Your task to perform on an android device: open app "Fetch Rewards" (install if not already installed), go to login, and select forgot password Image 0: 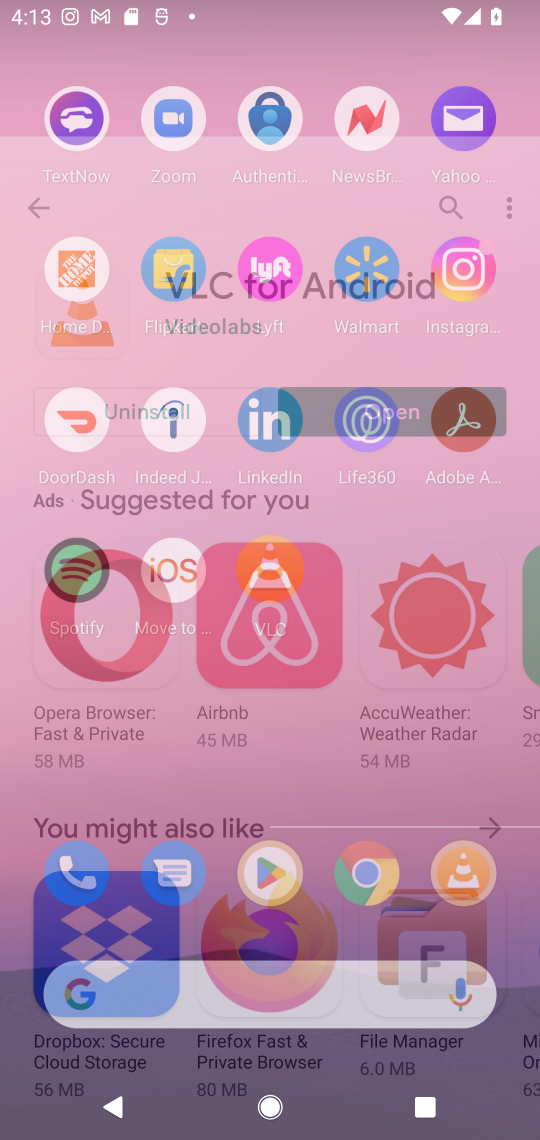
Step 0: press home button
Your task to perform on an android device: open app "Fetch Rewards" (install if not already installed), go to login, and select forgot password Image 1: 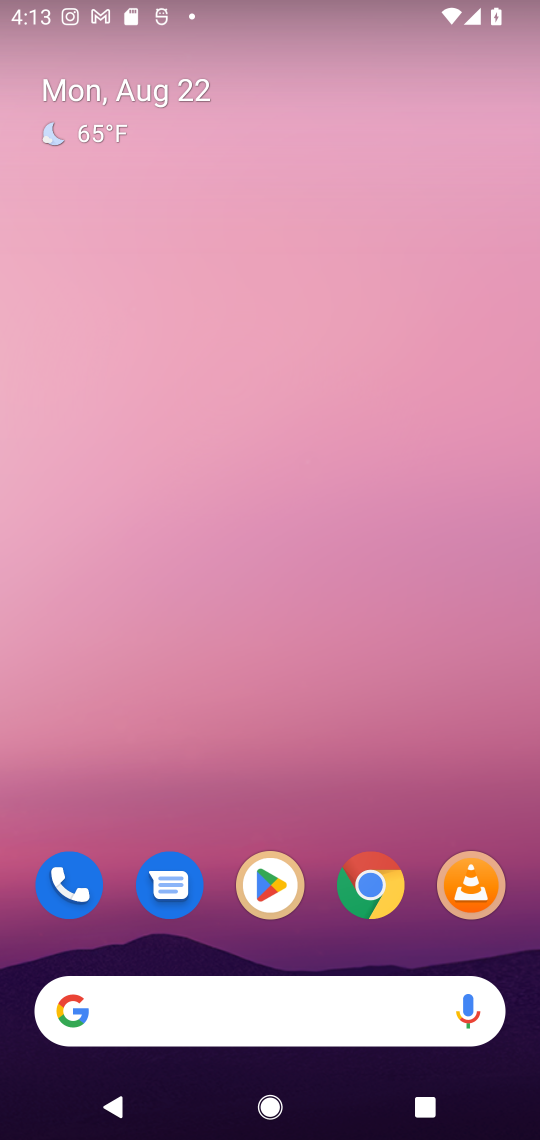
Step 1: click (264, 877)
Your task to perform on an android device: open app "Fetch Rewards" (install if not already installed), go to login, and select forgot password Image 2: 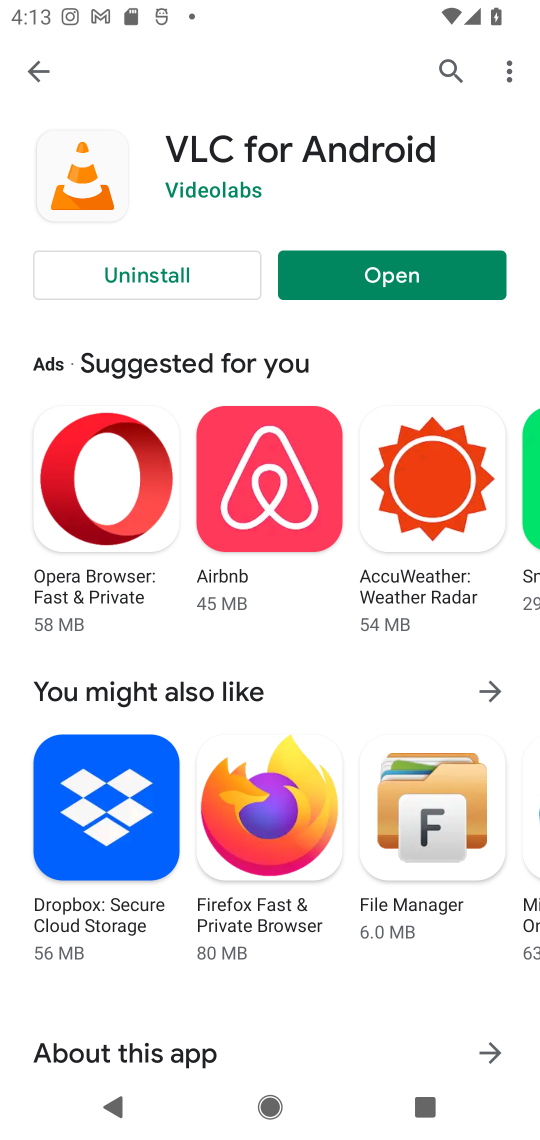
Step 2: click (40, 66)
Your task to perform on an android device: open app "Fetch Rewards" (install if not already installed), go to login, and select forgot password Image 3: 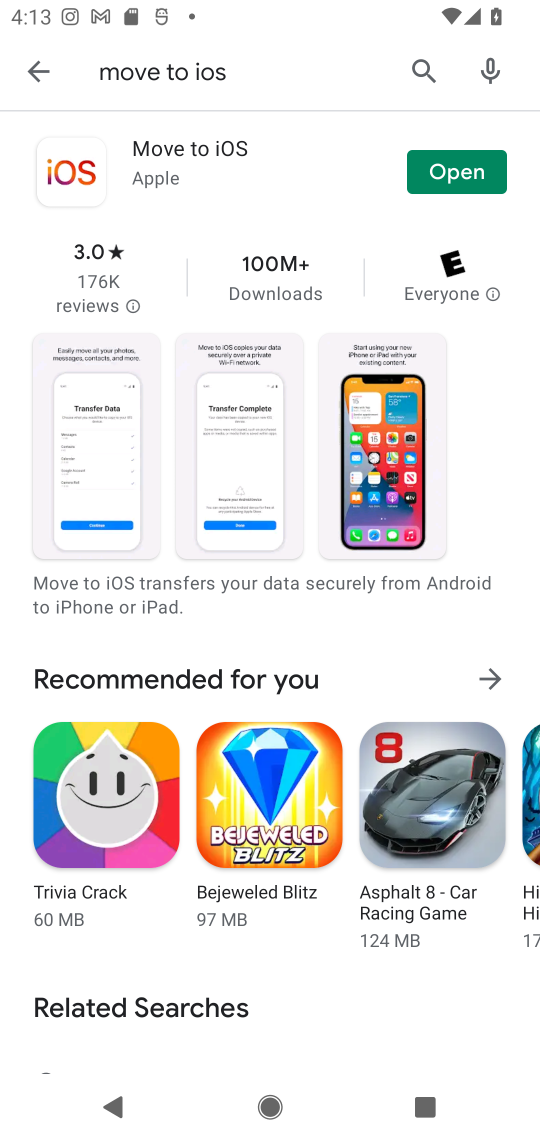
Step 3: click (416, 70)
Your task to perform on an android device: open app "Fetch Rewards" (install if not already installed), go to login, and select forgot password Image 4: 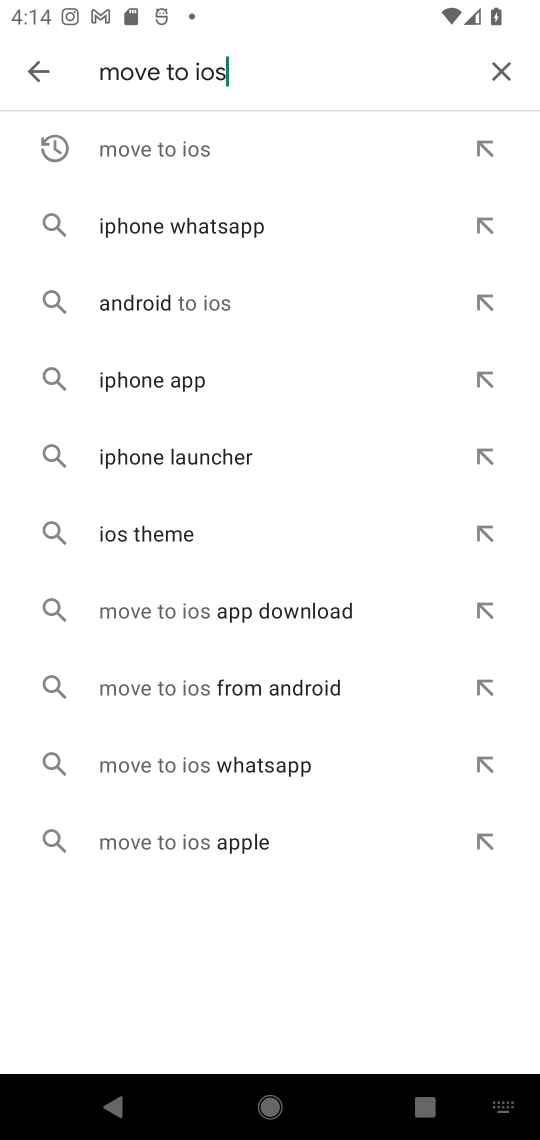
Step 4: click (508, 55)
Your task to perform on an android device: open app "Fetch Rewards" (install if not already installed), go to login, and select forgot password Image 5: 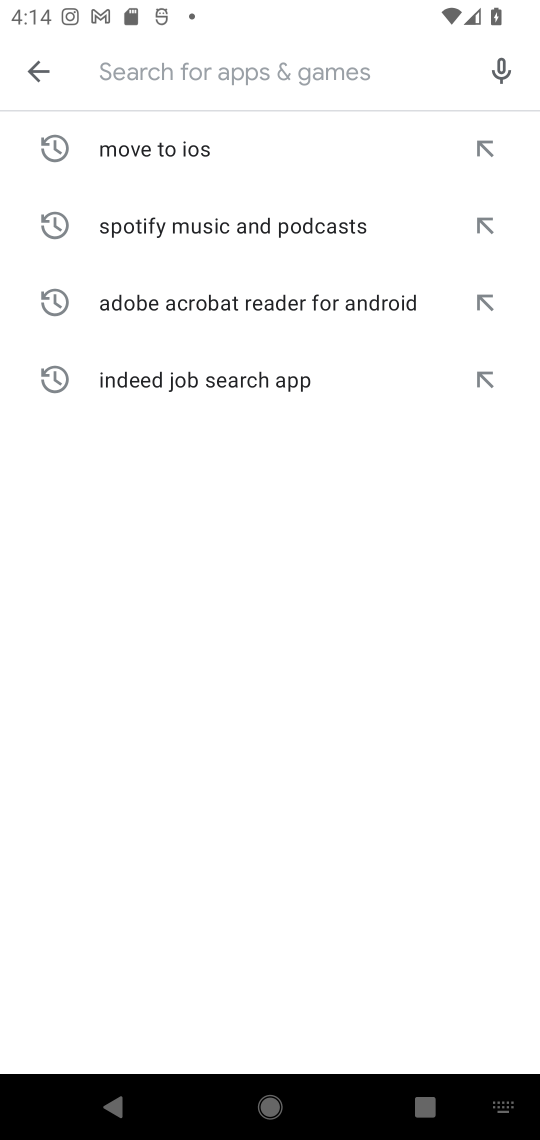
Step 5: type "Fetch Rewards"
Your task to perform on an android device: open app "Fetch Rewards" (install if not already installed), go to login, and select forgot password Image 6: 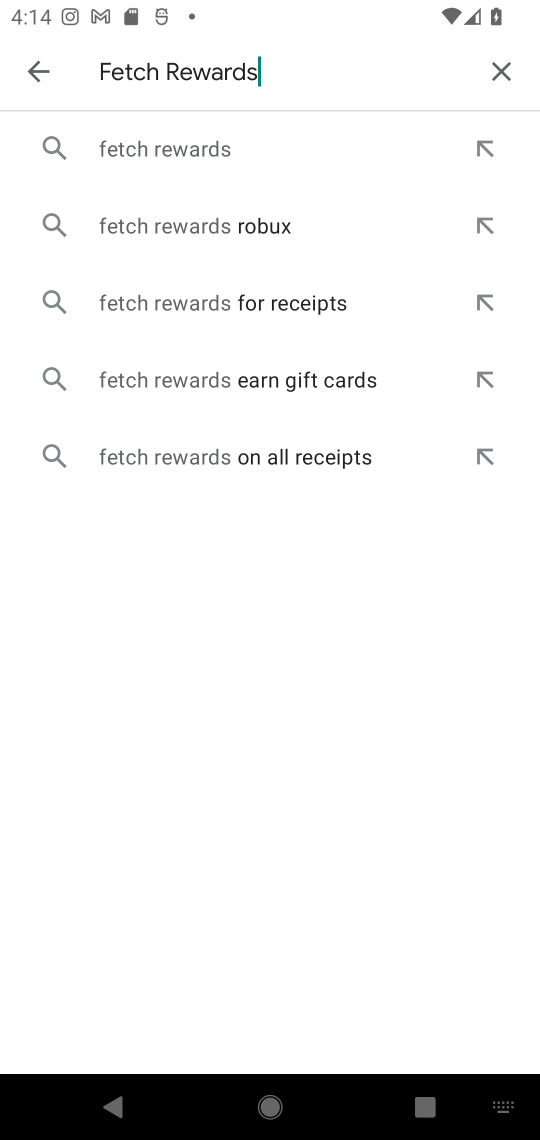
Step 6: click (244, 142)
Your task to perform on an android device: open app "Fetch Rewards" (install if not already installed), go to login, and select forgot password Image 7: 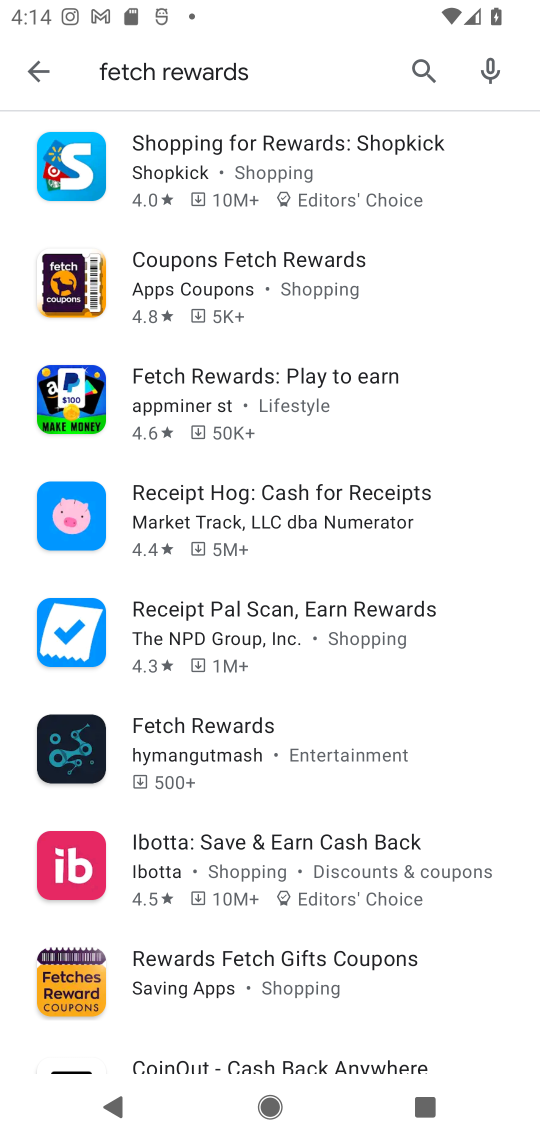
Step 7: click (210, 401)
Your task to perform on an android device: open app "Fetch Rewards" (install if not already installed), go to login, and select forgot password Image 8: 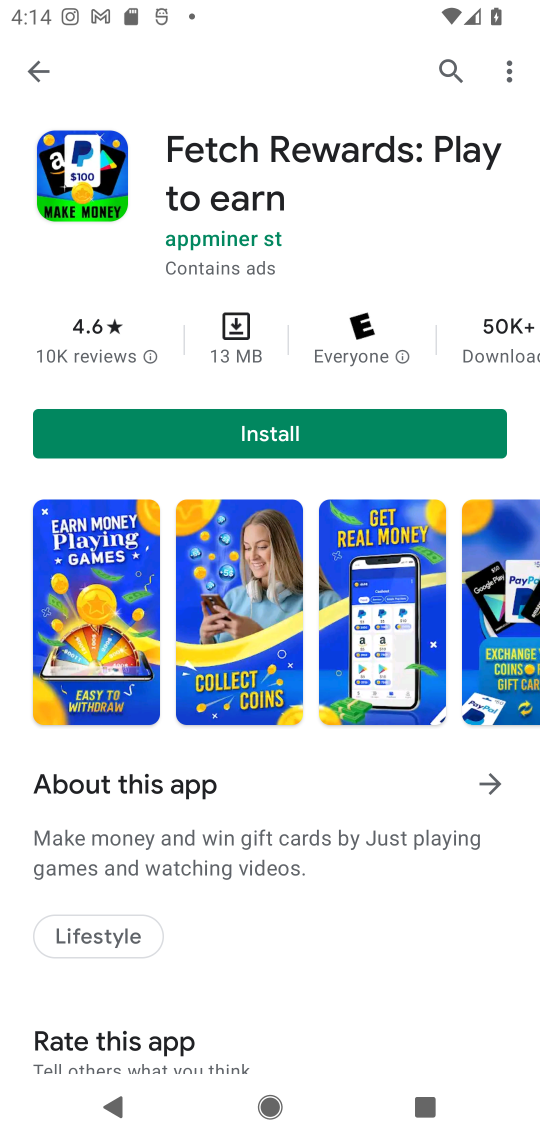
Step 8: click (44, 68)
Your task to perform on an android device: open app "Fetch Rewards" (install if not already installed), go to login, and select forgot password Image 9: 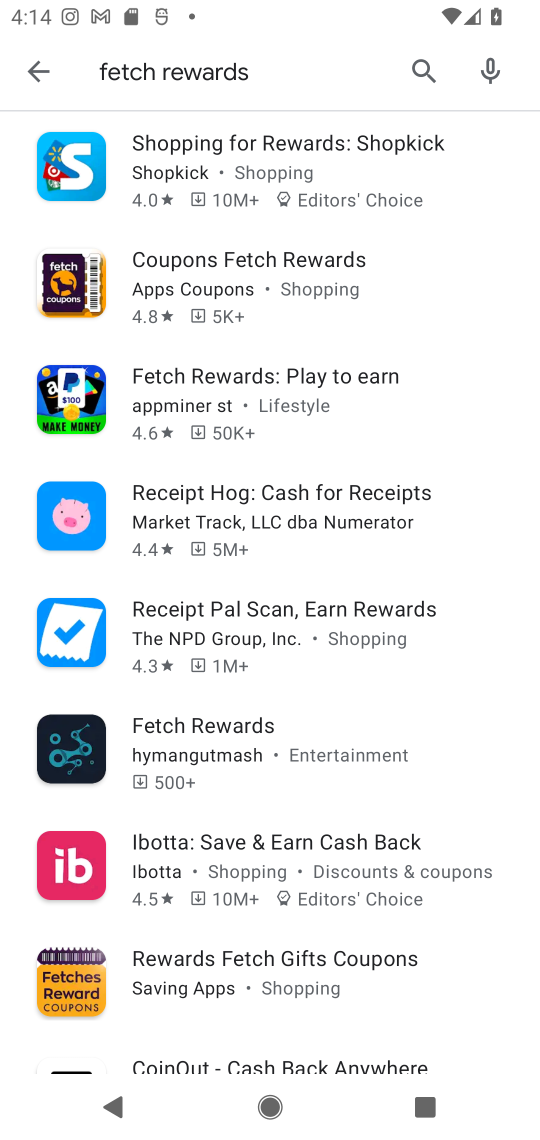
Step 9: task complete